Your task to perform on an android device: check out phone information Image 0: 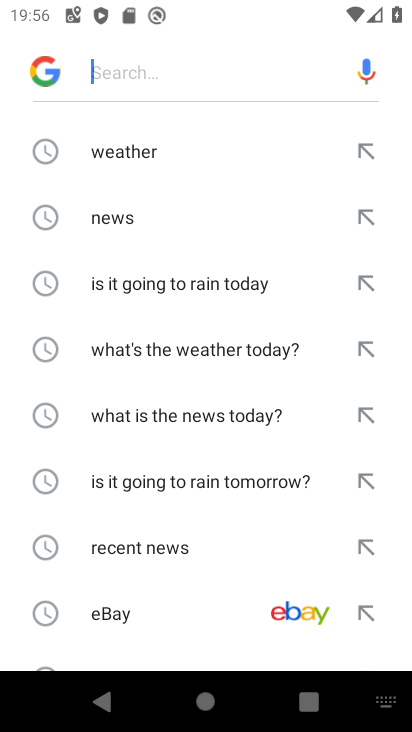
Step 0: press home button
Your task to perform on an android device: check out phone information Image 1: 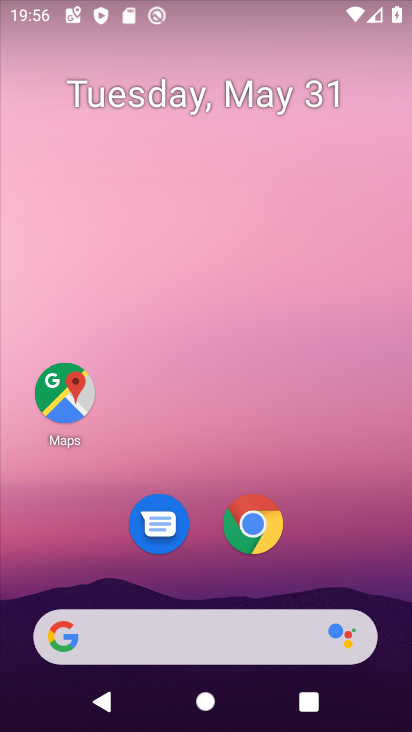
Step 1: drag from (194, 443) to (199, 8)
Your task to perform on an android device: check out phone information Image 2: 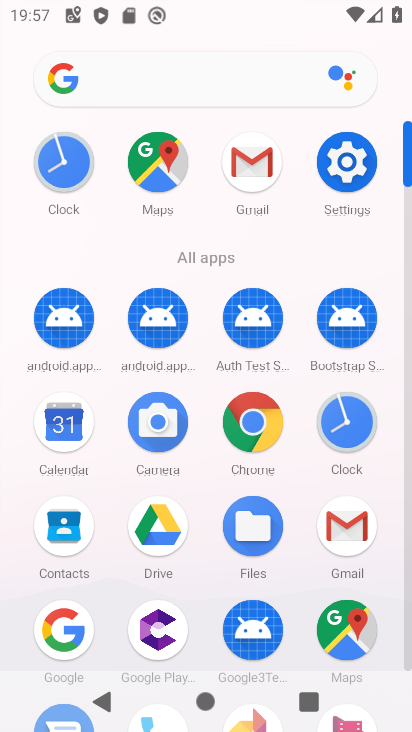
Step 2: drag from (192, 471) to (196, 186)
Your task to perform on an android device: check out phone information Image 3: 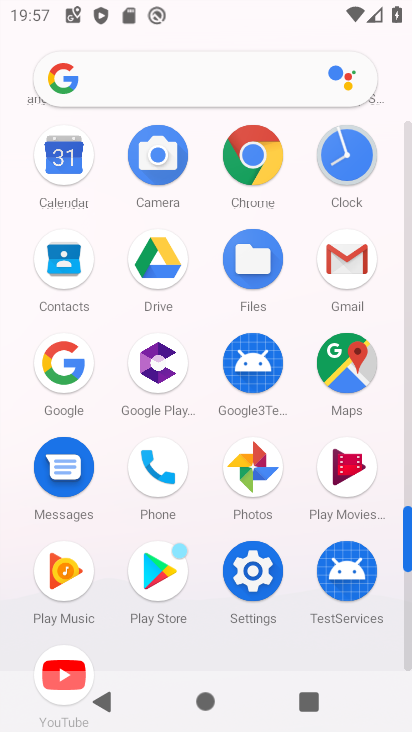
Step 3: click (168, 469)
Your task to perform on an android device: check out phone information Image 4: 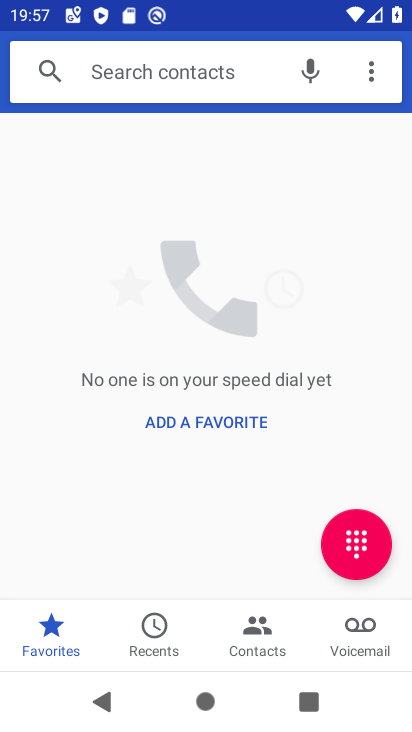
Step 4: click (372, 71)
Your task to perform on an android device: check out phone information Image 5: 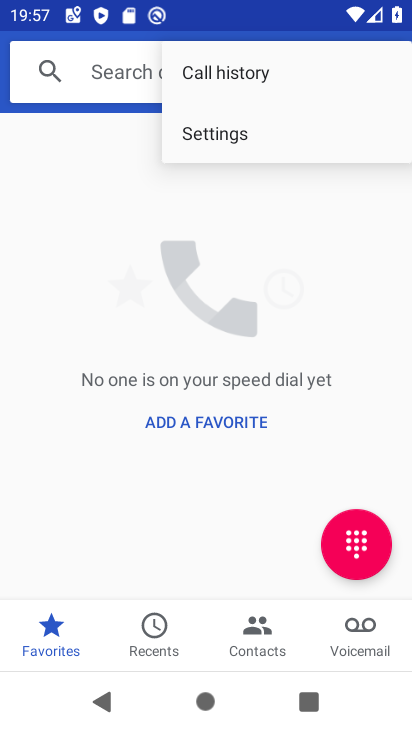
Step 5: click (314, 133)
Your task to perform on an android device: check out phone information Image 6: 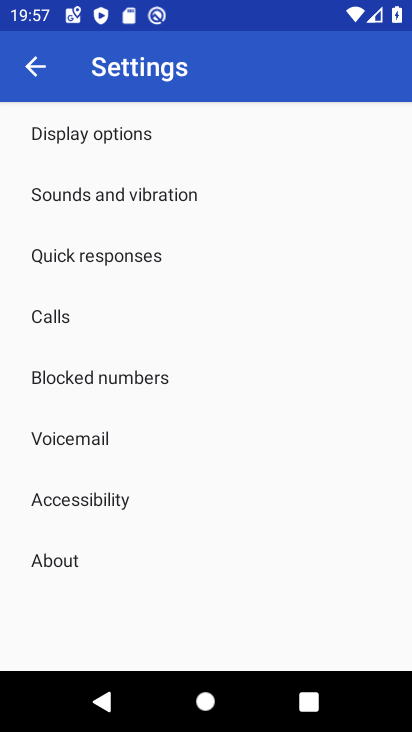
Step 6: click (59, 553)
Your task to perform on an android device: check out phone information Image 7: 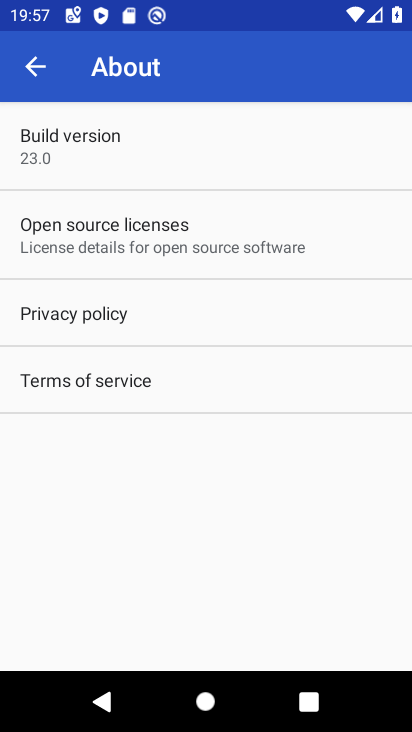
Step 7: task complete